Your task to perform on an android device: toggle javascript in the chrome app Image 0: 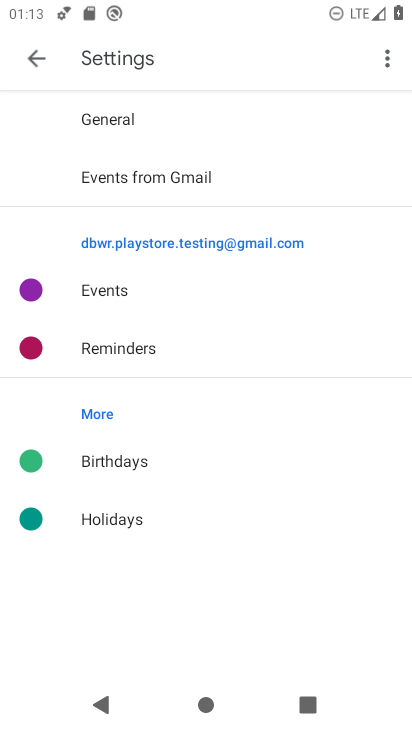
Step 0: drag from (250, 543) to (407, 459)
Your task to perform on an android device: toggle javascript in the chrome app Image 1: 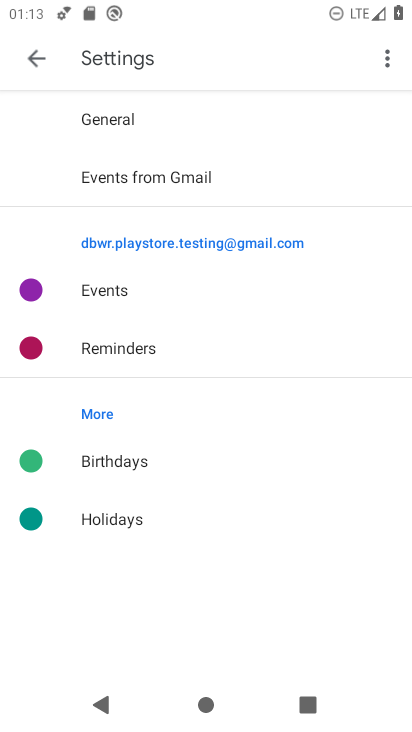
Step 1: press home button
Your task to perform on an android device: toggle javascript in the chrome app Image 2: 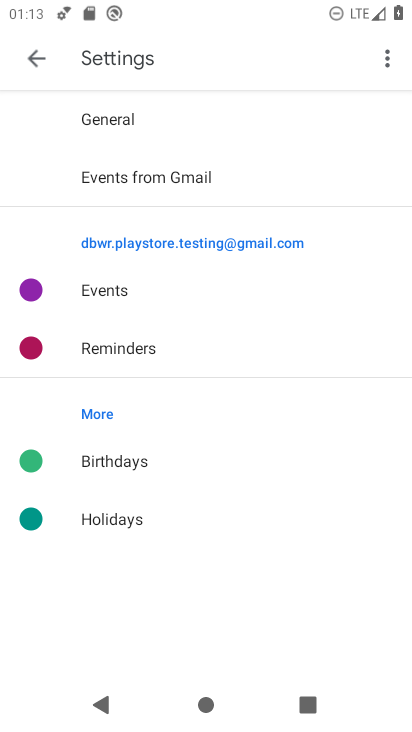
Step 2: drag from (407, 459) to (395, 569)
Your task to perform on an android device: toggle javascript in the chrome app Image 3: 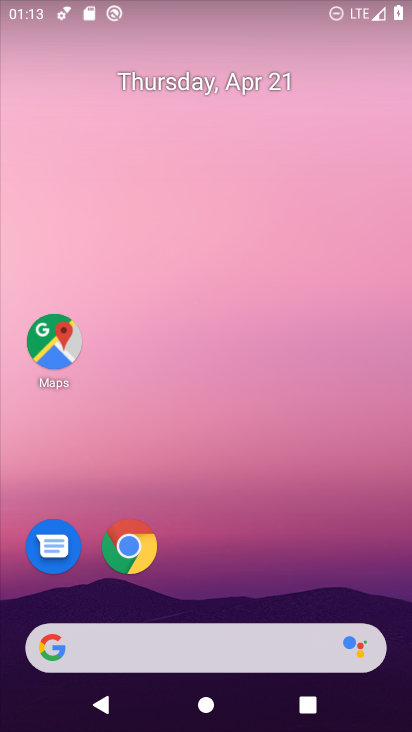
Step 3: click (135, 556)
Your task to perform on an android device: toggle javascript in the chrome app Image 4: 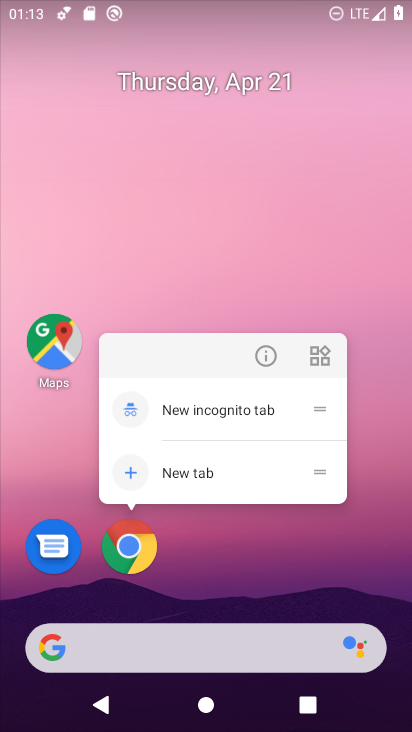
Step 4: click (132, 554)
Your task to perform on an android device: toggle javascript in the chrome app Image 5: 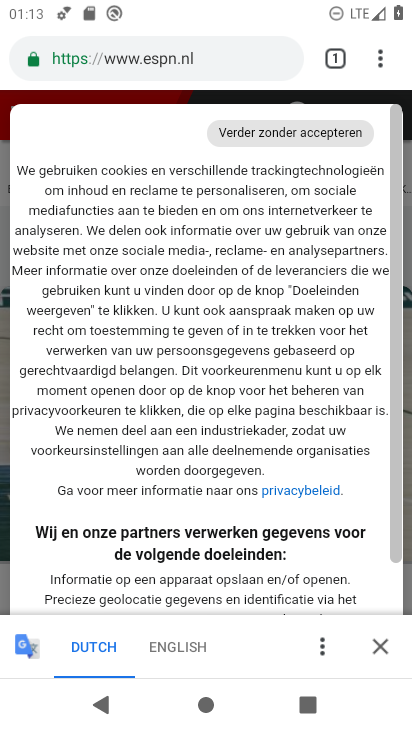
Step 5: drag from (379, 60) to (213, 571)
Your task to perform on an android device: toggle javascript in the chrome app Image 6: 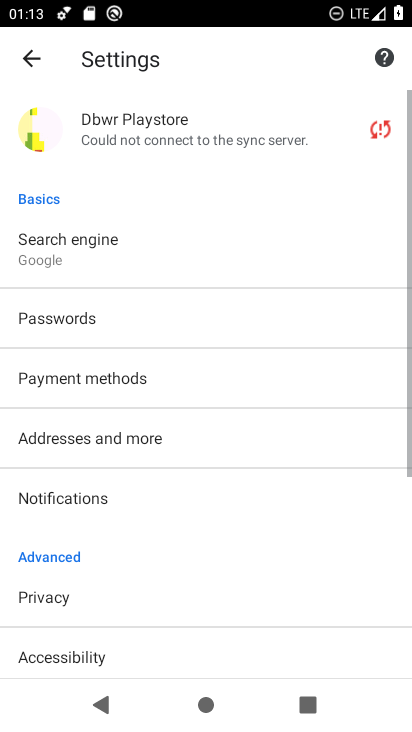
Step 6: drag from (128, 605) to (110, 277)
Your task to perform on an android device: toggle javascript in the chrome app Image 7: 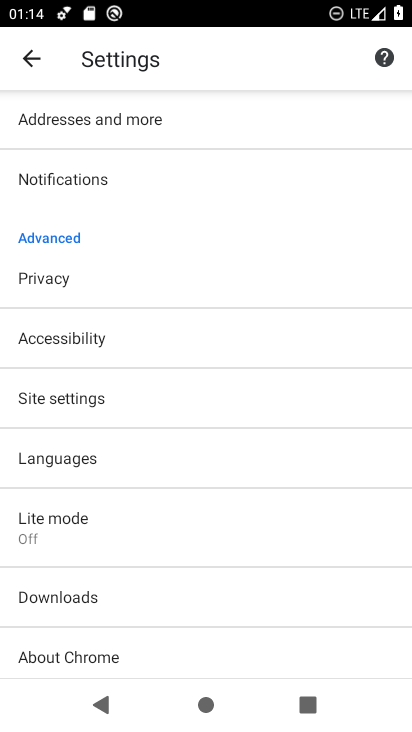
Step 7: click (69, 411)
Your task to perform on an android device: toggle javascript in the chrome app Image 8: 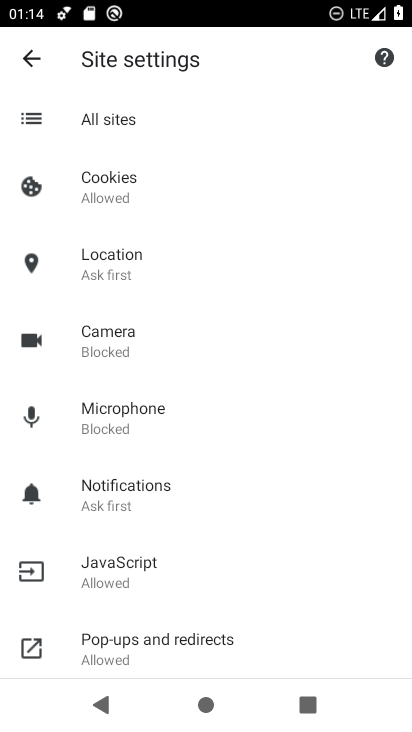
Step 8: click (168, 583)
Your task to perform on an android device: toggle javascript in the chrome app Image 9: 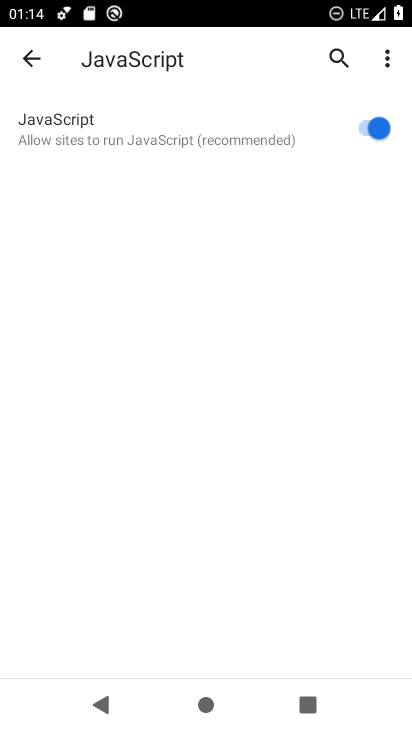
Step 9: click (382, 128)
Your task to perform on an android device: toggle javascript in the chrome app Image 10: 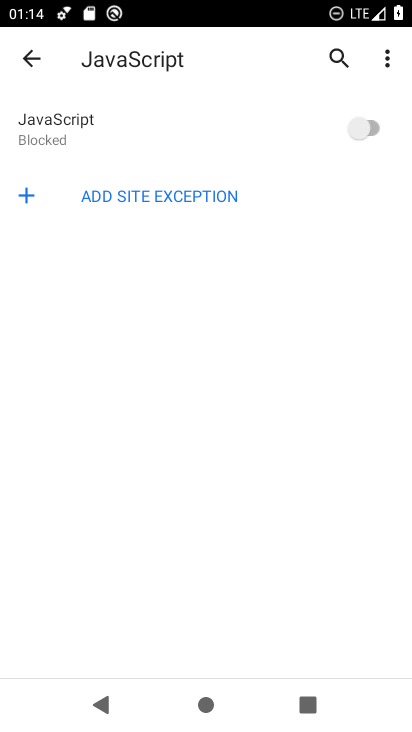
Step 10: task complete